Your task to perform on an android device: Go to wifi settings Image 0: 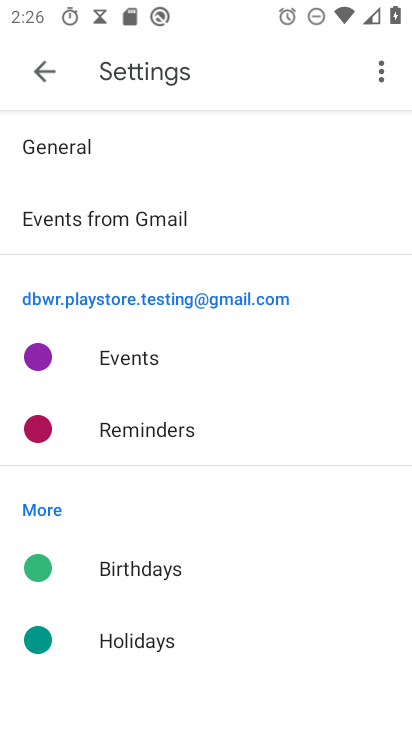
Step 0: press home button
Your task to perform on an android device: Go to wifi settings Image 1: 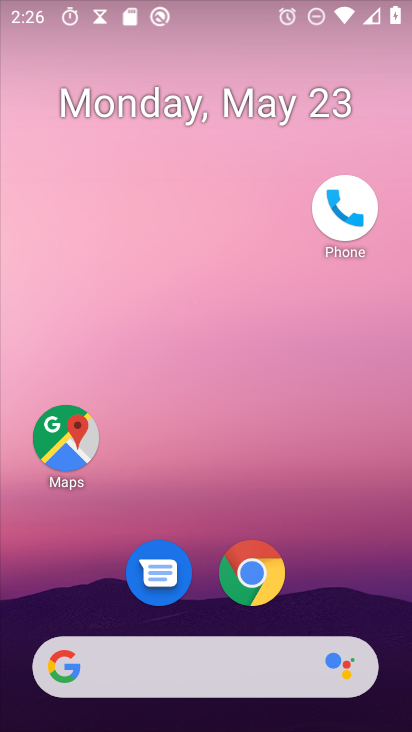
Step 1: drag from (176, 664) to (294, 141)
Your task to perform on an android device: Go to wifi settings Image 2: 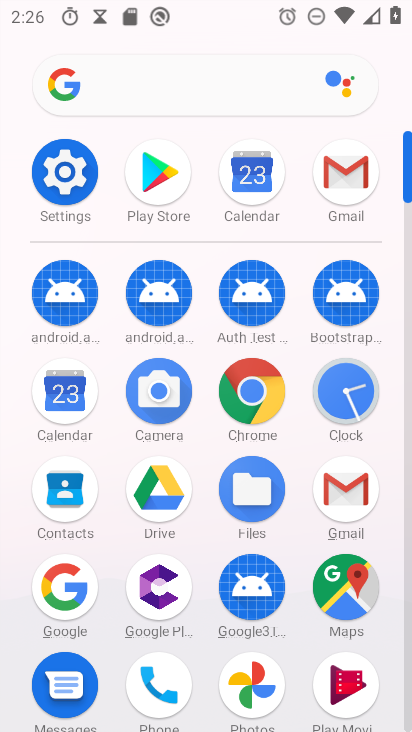
Step 2: click (71, 182)
Your task to perform on an android device: Go to wifi settings Image 3: 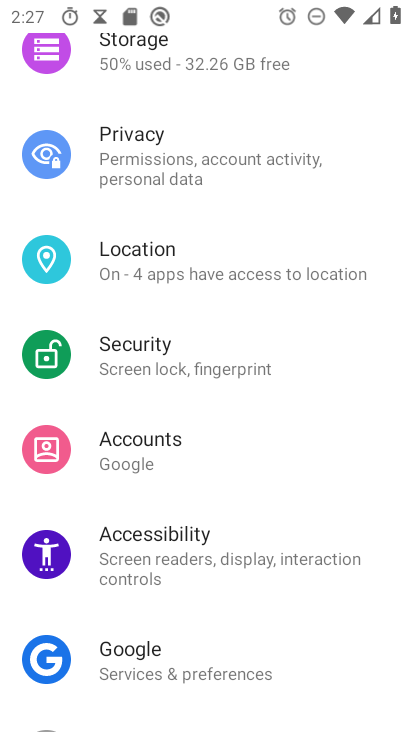
Step 3: drag from (293, 110) to (243, 563)
Your task to perform on an android device: Go to wifi settings Image 4: 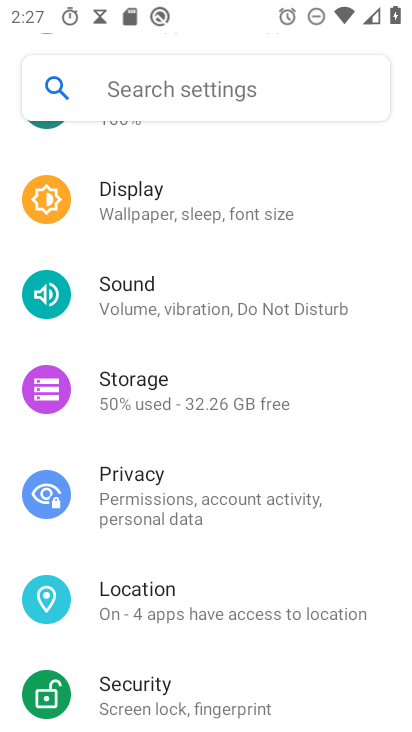
Step 4: drag from (263, 158) to (197, 680)
Your task to perform on an android device: Go to wifi settings Image 5: 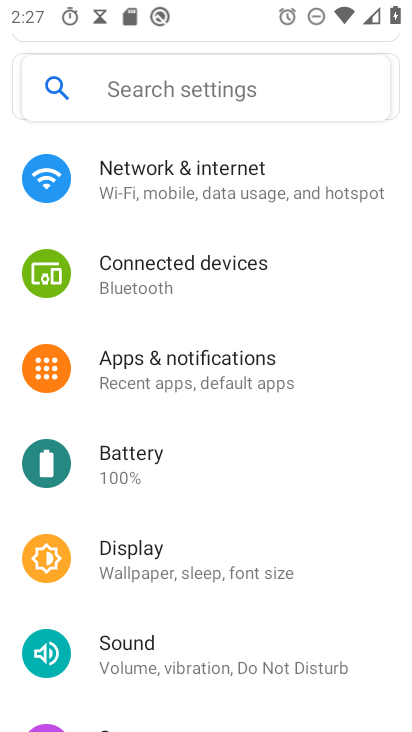
Step 5: drag from (314, 164) to (304, 555)
Your task to perform on an android device: Go to wifi settings Image 6: 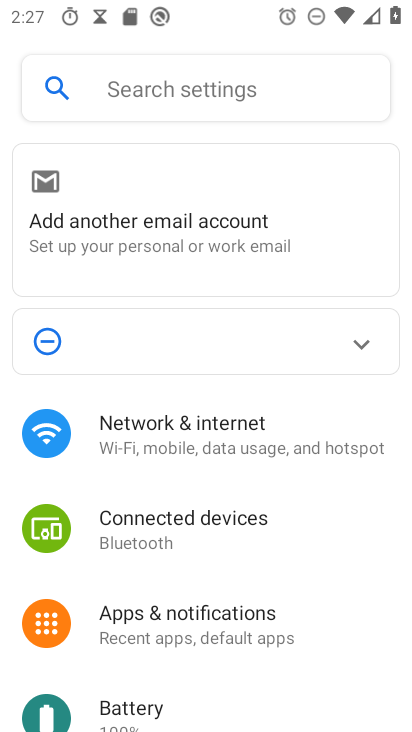
Step 6: click (200, 429)
Your task to perform on an android device: Go to wifi settings Image 7: 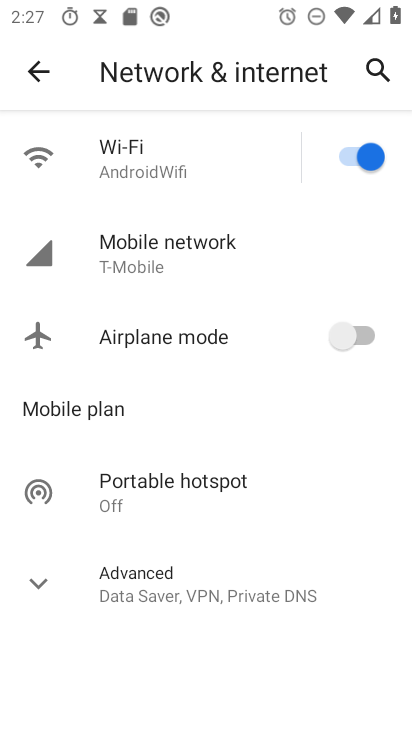
Step 7: click (143, 172)
Your task to perform on an android device: Go to wifi settings Image 8: 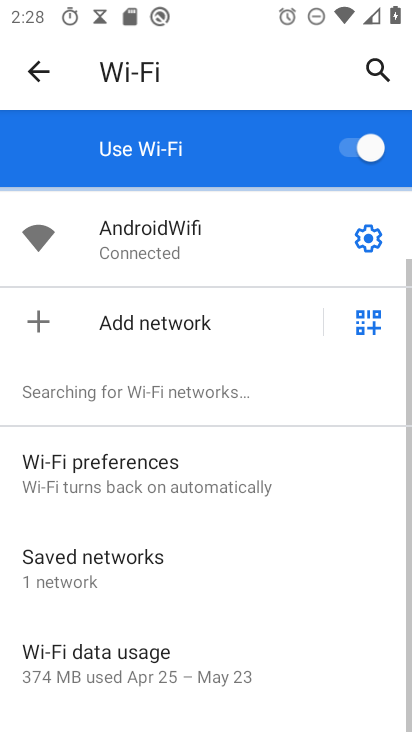
Step 8: task complete